Your task to perform on an android device: open the mobile data screen to see how much data has been used Image 0: 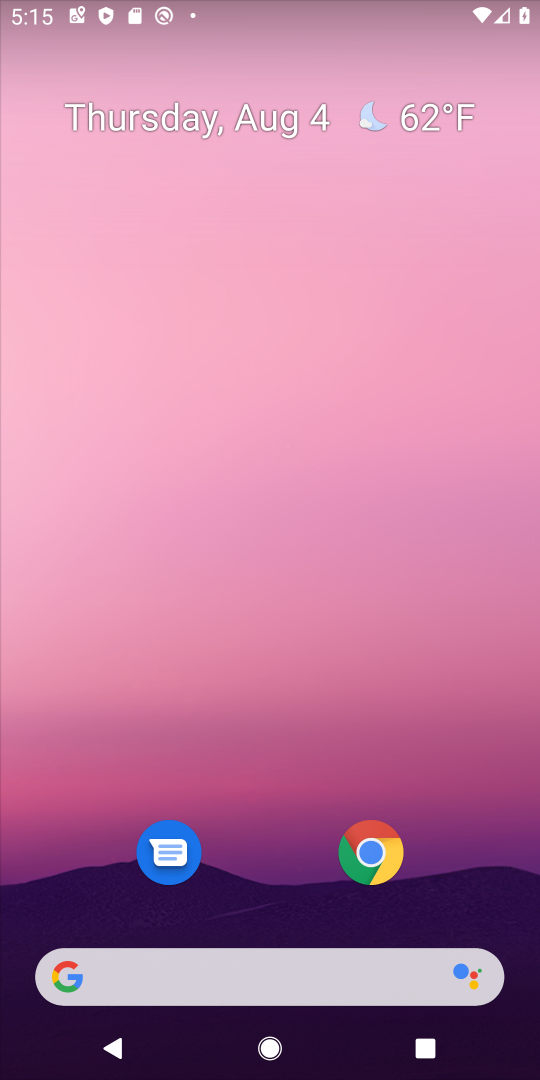
Step 0: drag from (250, 878) to (229, 206)
Your task to perform on an android device: open the mobile data screen to see how much data has been used Image 1: 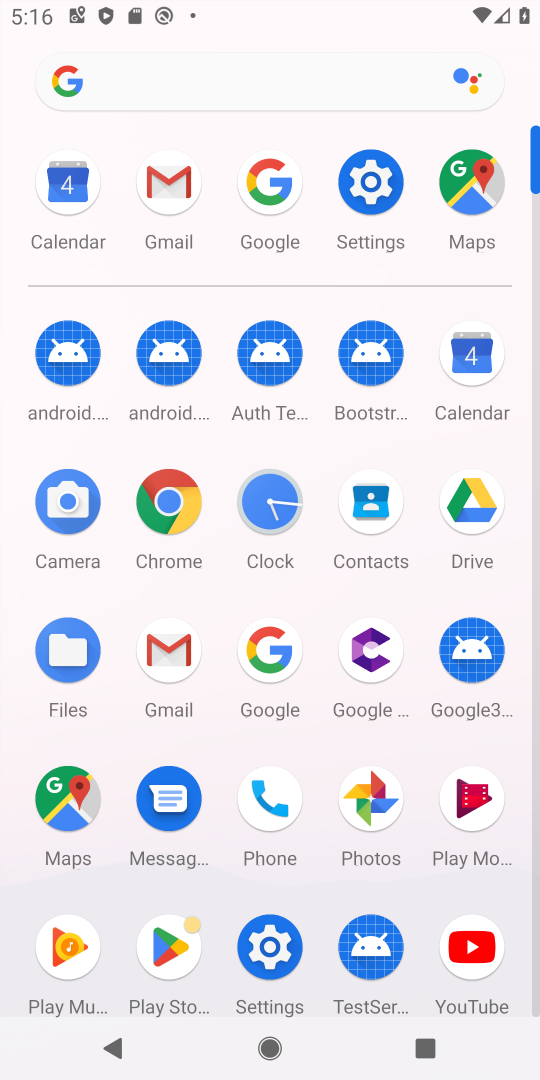
Step 1: click (259, 946)
Your task to perform on an android device: open the mobile data screen to see how much data has been used Image 2: 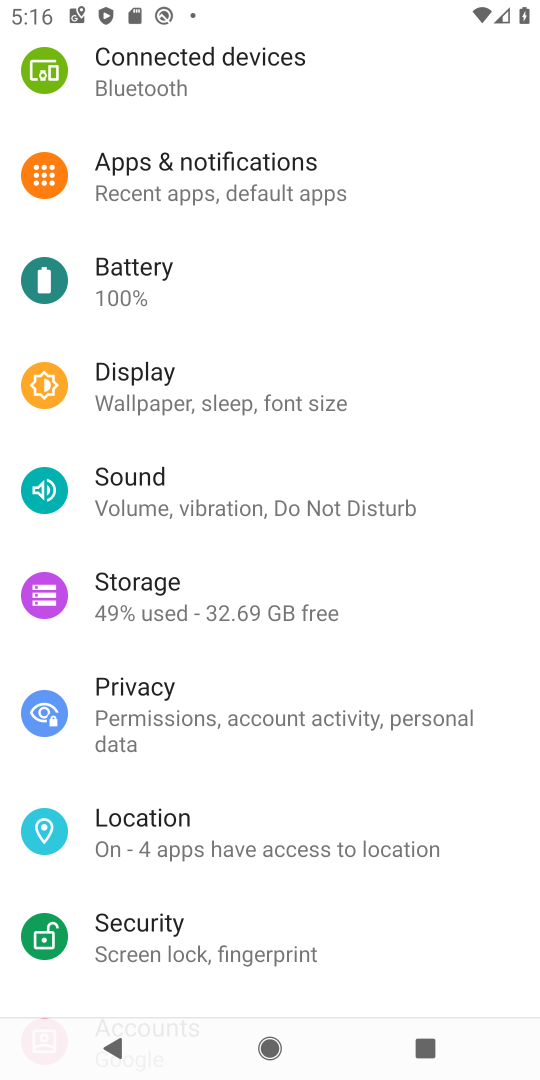
Step 2: drag from (164, 151) to (197, 824)
Your task to perform on an android device: open the mobile data screen to see how much data has been used Image 3: 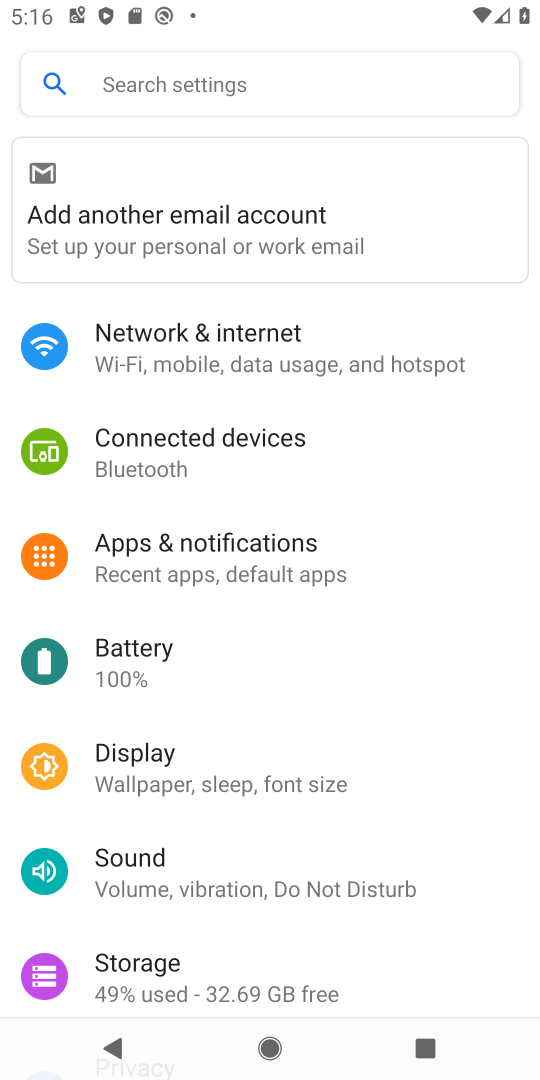
Step 3: click (172, 364)
Your task to perform on an android device: open the mobile data screen to see how much data has been used Image 4: 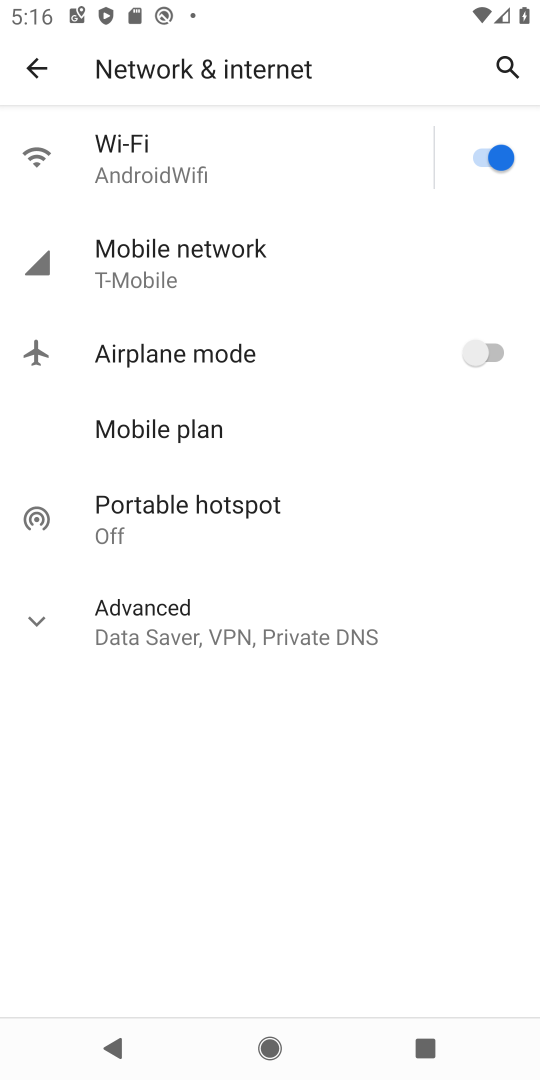
Step 4: click (154, 263)
Your task to perform on an android device: open the mobile data screen to see how much data has been used Image 5: 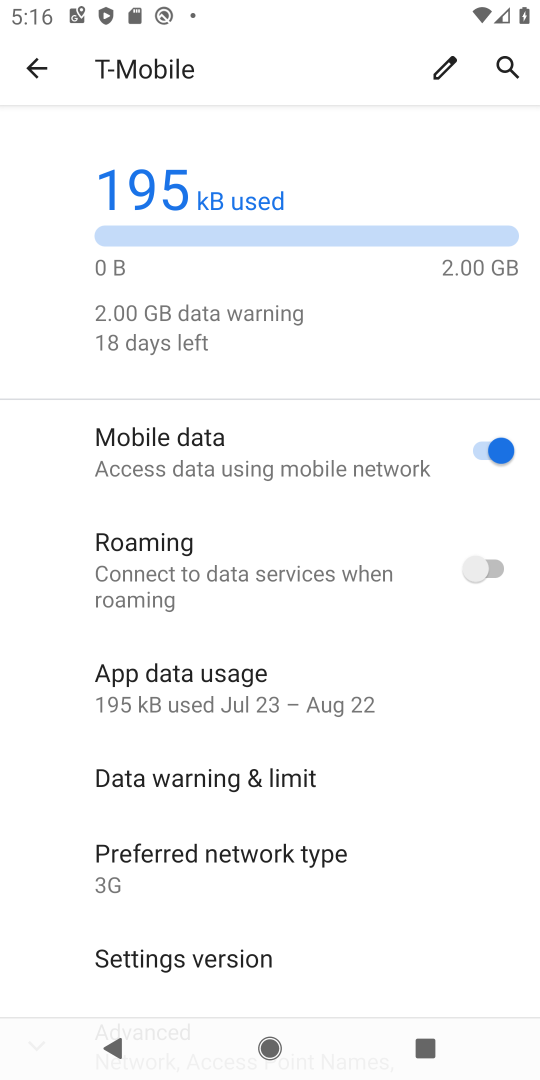
Step 5: click (171, 693)
Your task to perform on an android device: open the mobile data screen to see how much data has been used Image 6: 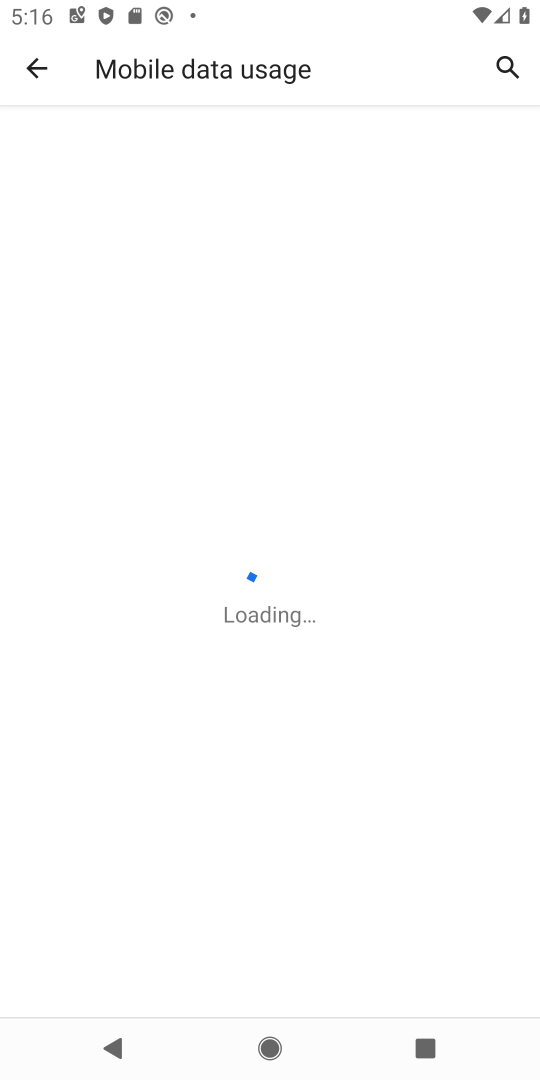
Step 6: task complete